Your task to perform on an android device: Open Chrome and go to the settings page Image 0: 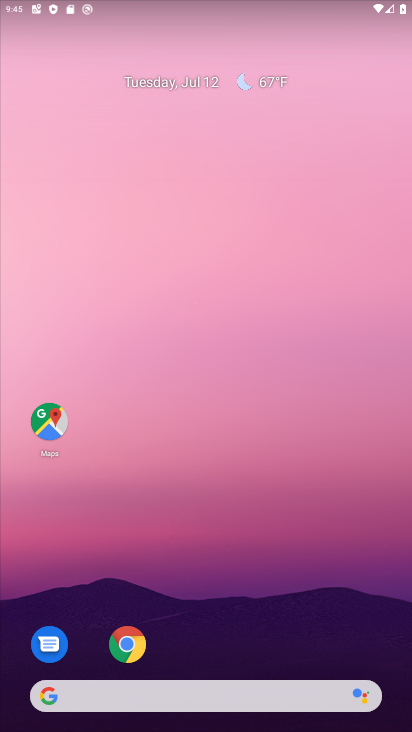
Step 0: drag from (184, 639) to (240, 199)
Your task to perform on an android device: Open Chrome and go to the settings page Image 1: 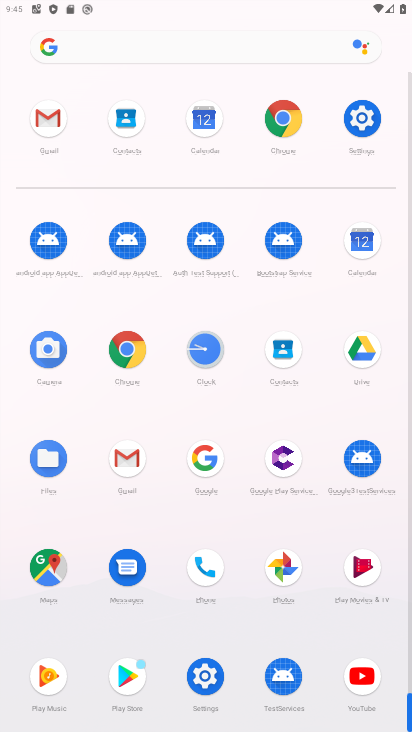
Step 1: click (131, 356)
Your task to perform on an android device: Open Chrome and go to the settings page Image 2: 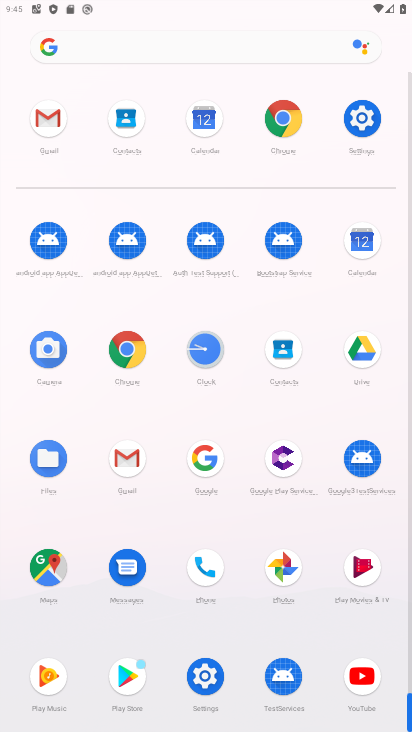
Step 2: click (131, 356)
Your task to perform on an android device: Open Chrome and go to the settings page Image 3: 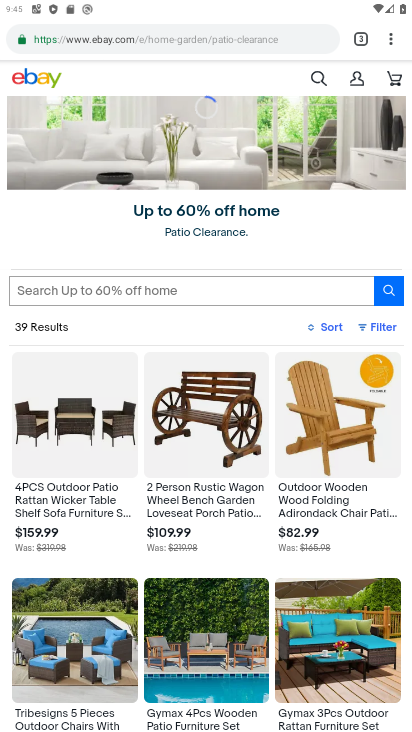
Step 3: click (386, 32)
Your task to perform on an android device: Open Chrome and go to the settings page Image 4: 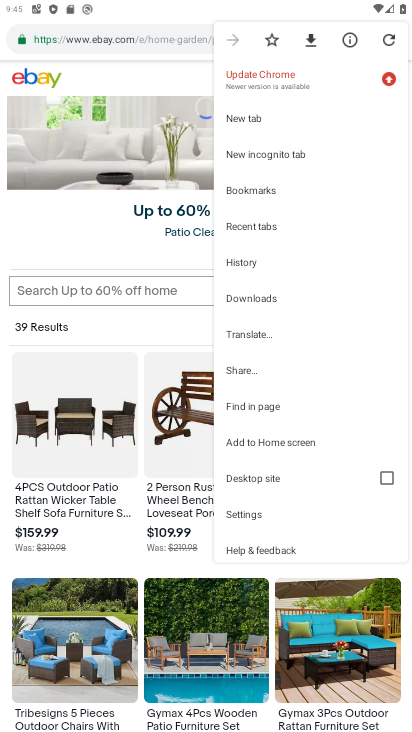
Step 4: click (253, 510)
Your task to perform on an android device: Open Chrome and go to the settings page Image 5: 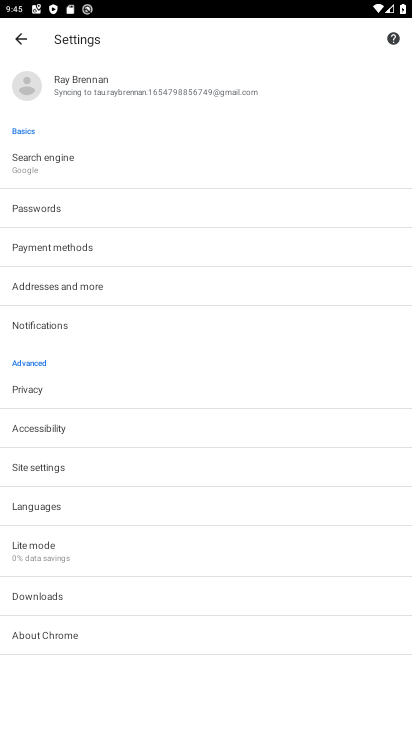
Step 5: click (72, 466)
Your task to perform on an android device: Open Chrome and go to the settings page Image 6: 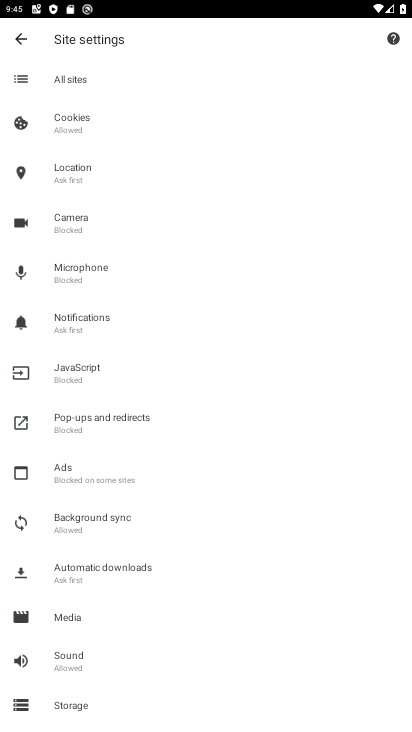
Step 6: task complete